Your task to perform on an android device: open the mobile data screen to see how much data has been used Image 0: 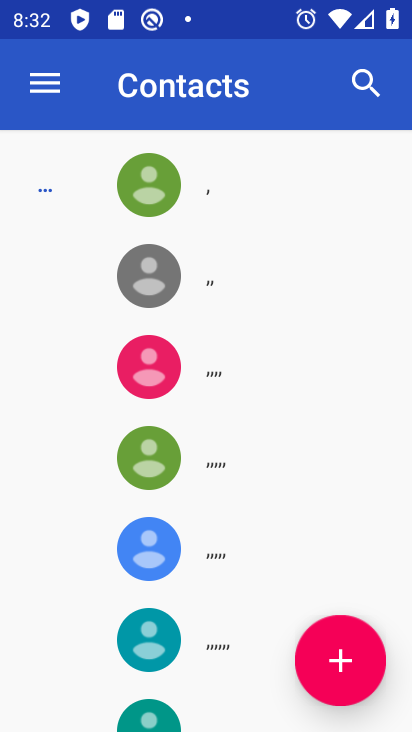
Step 0: press home button
Your task to perform on an android device: open the mobile data screen to see how much data has been used Image 1: 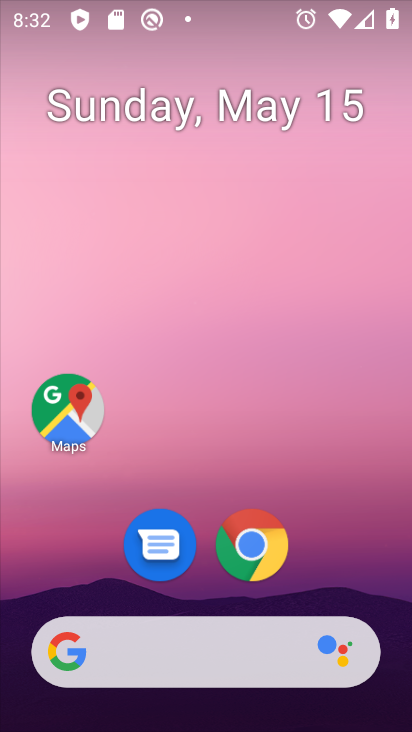
Step 1: drag from (351, 580) to (368, 257)
Your task to perform on an android device: open the mobile data screen to see how much data has been used Image 2: 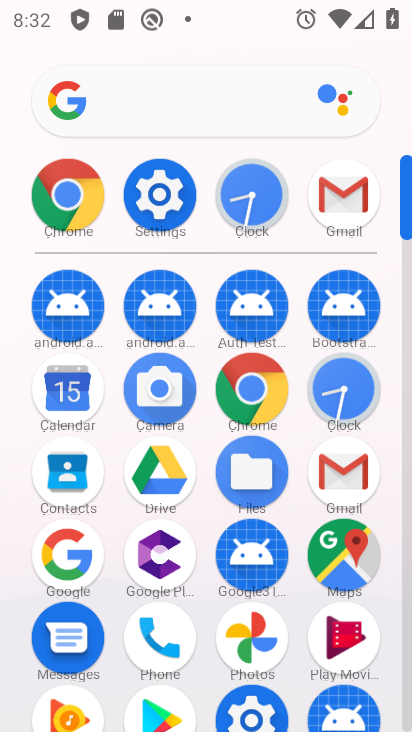
Step 2: click (173, 221)
Your task to perform on an android device: open the mobile data screen to see how much data has been used Image 3: 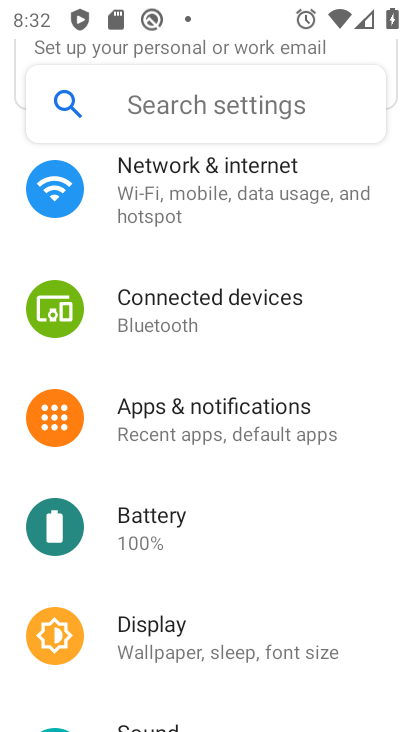
Step 3: drag from (371, 578) to (368, 308)
Your task to perform on an android device: open the mobile data screen to see how much data has been used Image 4: 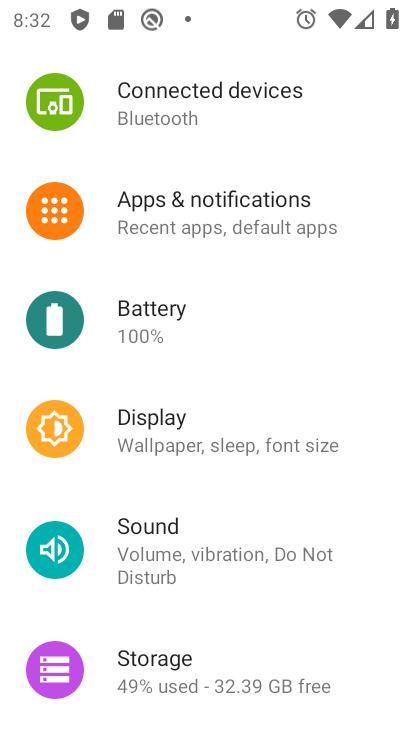
Step 4: drag from (344, 637) to (342, 292)
Your task to perform on an android device: open the mobile data screen to see how much data has been used Image 5: 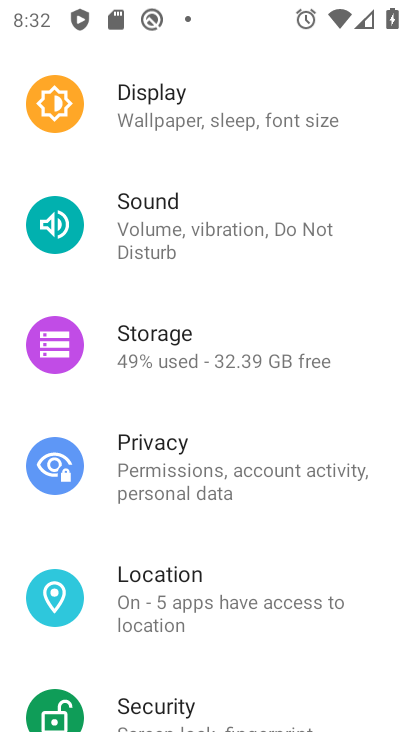
Step 5: drag from (365, 664) to (369, 412)
Your task to perform on an android device: open the mobile data screen to see how much data has been used Image 6: 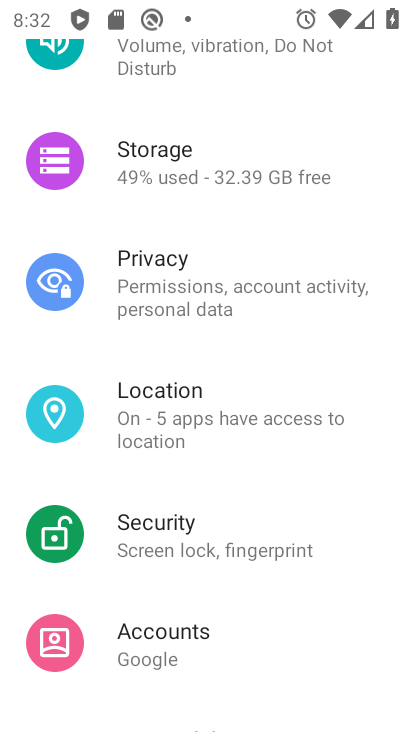
Step 6: drag from (350, 664) to (364, 454)
Your task to perform on an android device: open the mobile data screen to see how much data has been used Image 7: 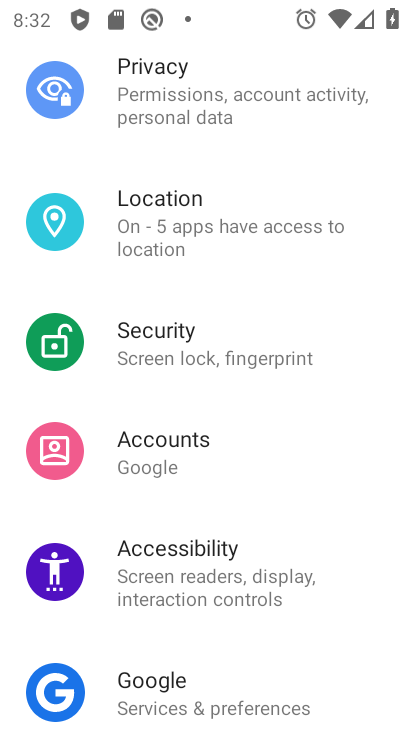
Step 7: drag from (351, 667) to (350, 425)
Your task to perform on an android device: open the mobile data screen to see how much data has been used Image 8: 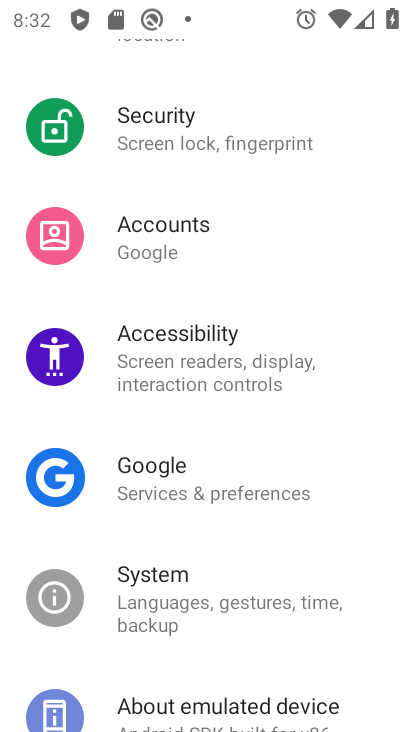
Step 8: drag from (325, 656) to (336, 440)
Your task to perform on an android device: open the mobile data screen to see how much data has been used Image 9: 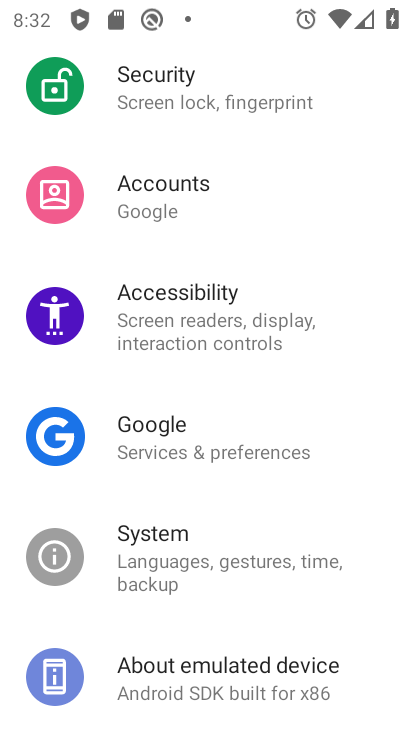
Step 9: drag from (352, 633) to (366, 345)
Your task to perform on an android device: open the mobile data screen to see how much data has been used Image 10: 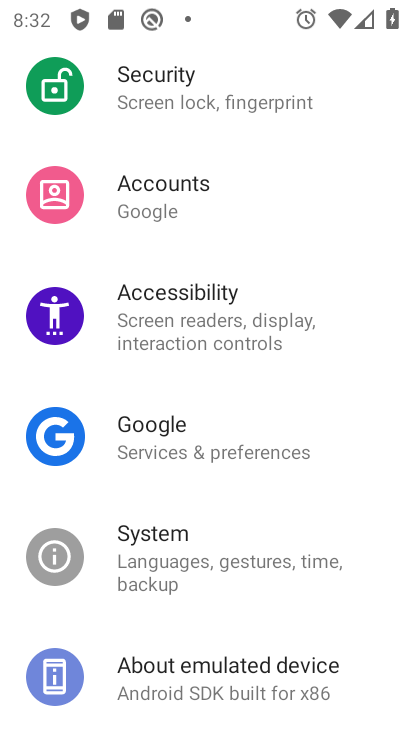
Step 10: drag from (357, 232) to (357, 479)
Your task to perform on an android device: open the mobile data screen to see how much data has been used Image 11: 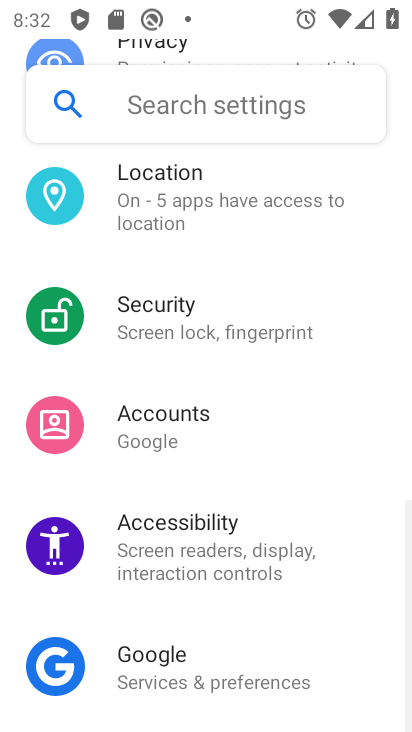
Step 11: drag from (355, 262) to (353, 531)
Your task to perform on an android device: open the mobile data screen to see how much data has been used Image 12: 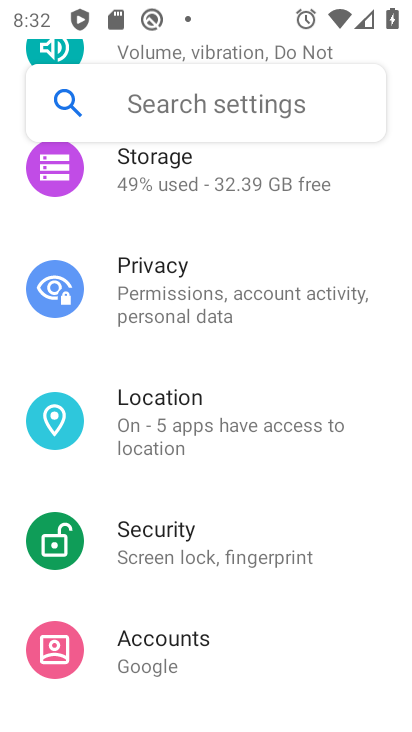
Step 12: drag from (360, 214) to (360, 477)
Your task to perform on an android device: open the mobile data screen to see how much data has been used Image 13: 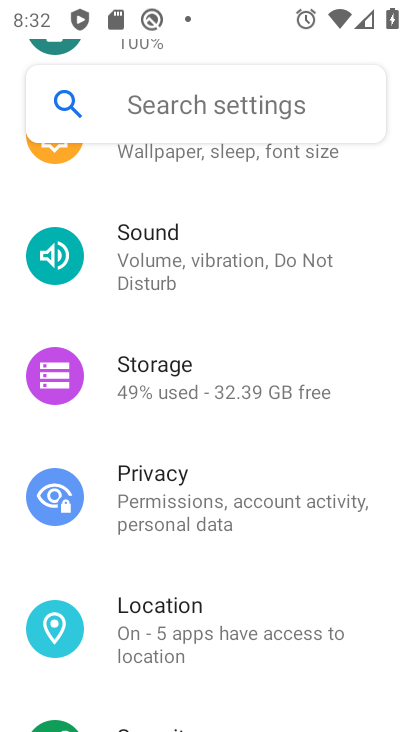
Step 13: drag from (372, 213) to (378, 462)
Your task to perform on an android device: open the mobile data screen to see how much data has been used Image 14: 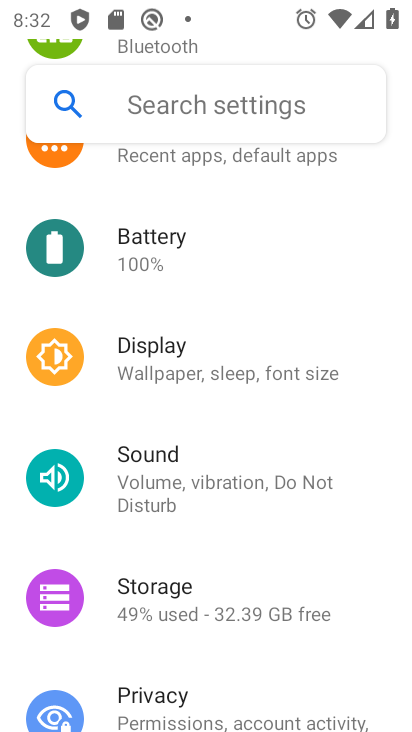
Step 14: drag from (374, 252) to (379, 506)
Your task to perform on an android device: open the mobile data screen to see how much data has been used Image 15: 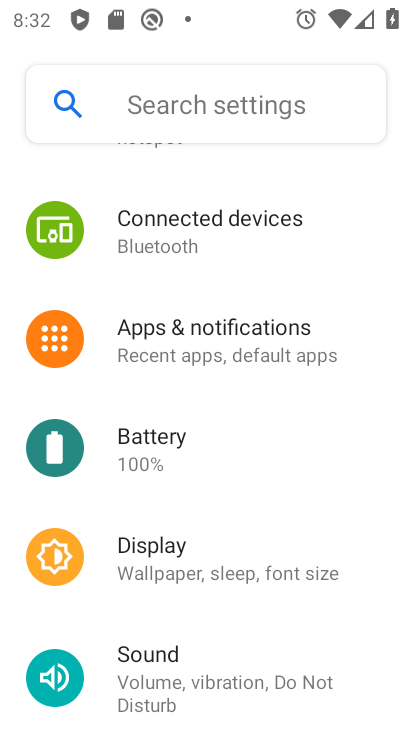
Step 15: drag from (370, 267) to (369, 526)
Your task to perform on an android device: open the mobile data screen to see how much data has been used Image 16: 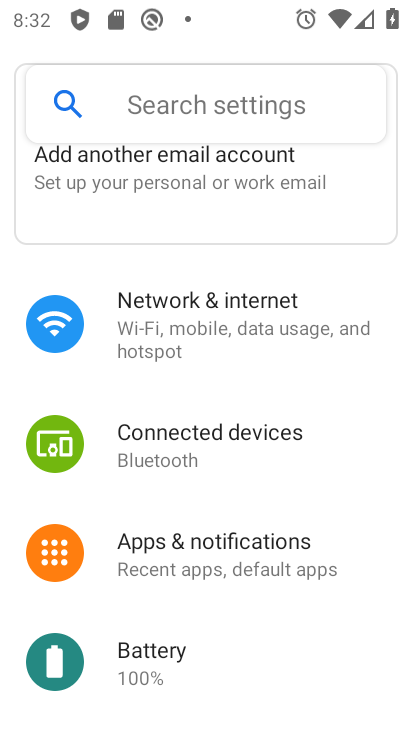
Step 16: drag from (352, 299) to (352, 483)
Your task to perform on an android device: open the mobile data screen to see how much data has been used Image 17: 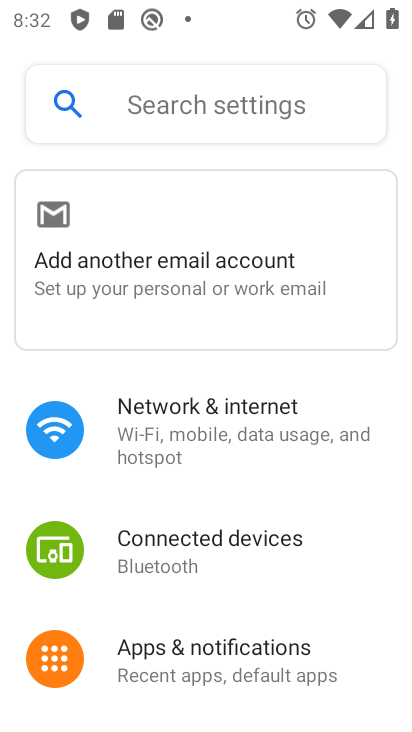
Step 17: drag from (345, 585) to (356, 352)
Your task to perform on an android device: open the mobile data screen to see how much data has been used Image 18: 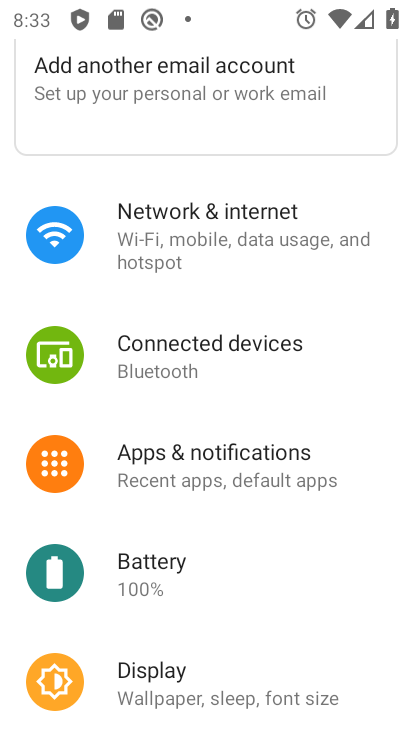
Step 18: click (221, 226)
Your task to perform on an android device: open the mobile data screen to see how much data has been used Image 19: 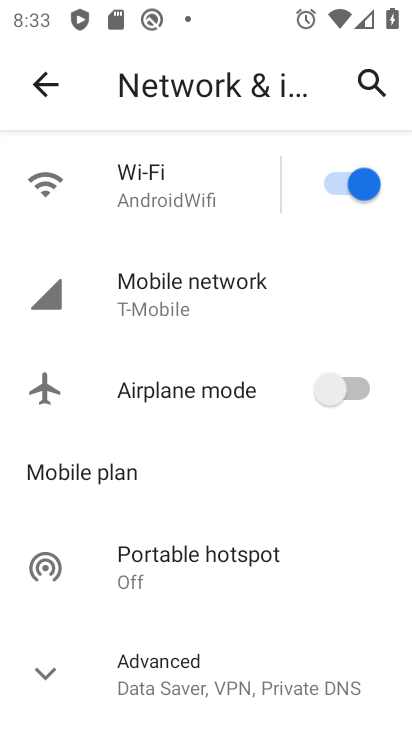
Step 19: click (182, 288)
Your task to perform on an android device: open the mobile data screen to see how much data has been used Image 20: 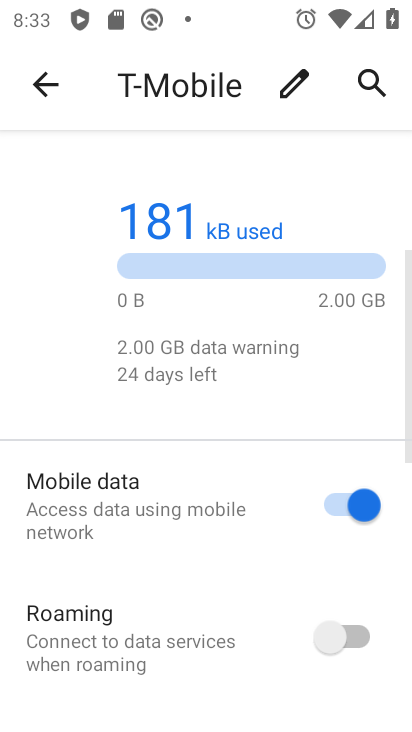
Step 20: drag from (238, 601) to (251, 404)
Your task to perform on an android device: open the mobile data screen to see how much data has been used Image 21: 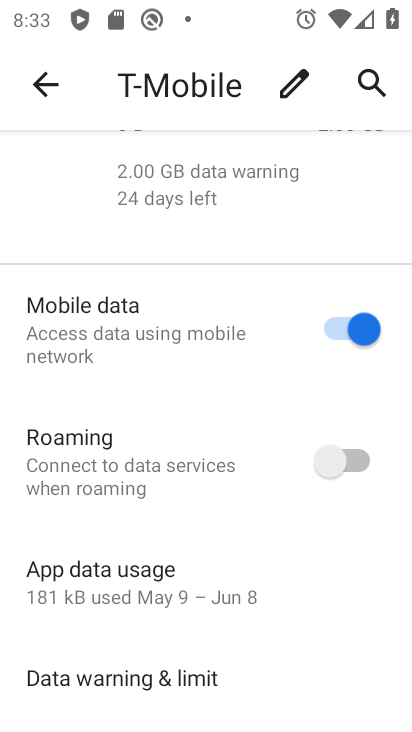
Step 21: click (161, 592)
Your task to perform on an android device: open the mobile data screen to see how much data has been used Image 22: 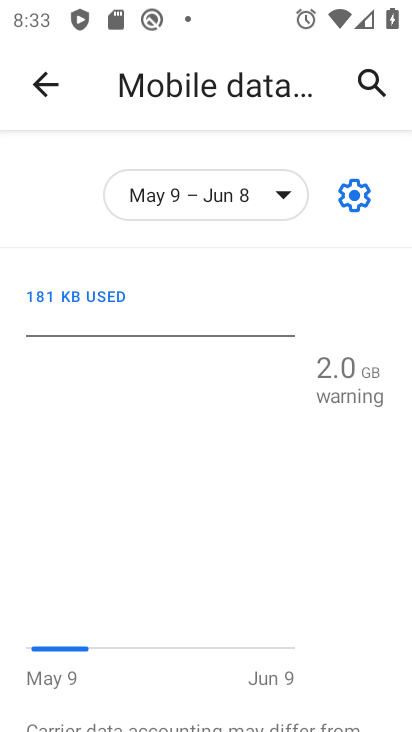
Step 22: task complete